Your task to perform on an android device: turn on improve location accuracy Image 0: 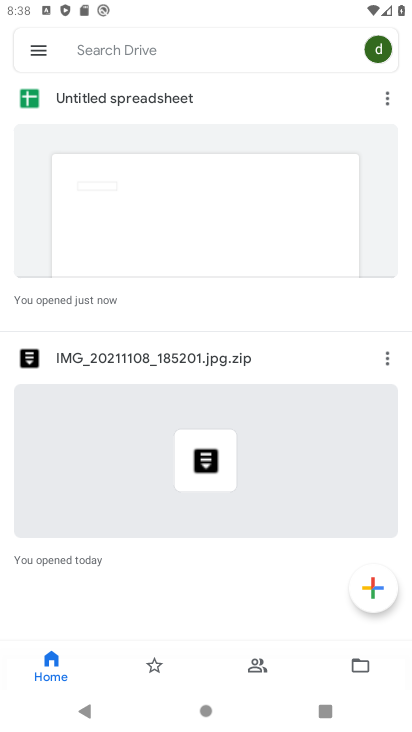
Step 0: press home button
Your task to perform on an android device: turn on improve location accuracy Image 1: 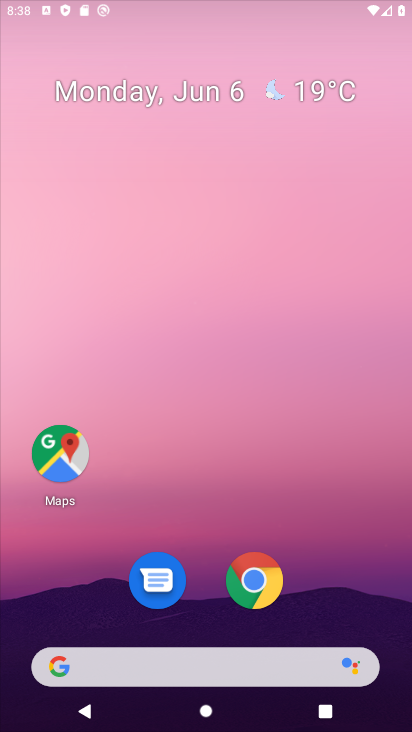
Step 1: drag from (244, 626) to (248, 26)
Your task to perform on an android device: turn on improve location accuracy Image 2: 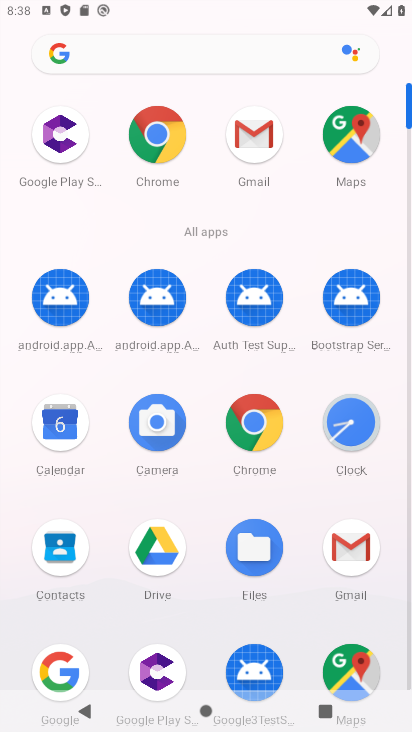
Step 2: drag from (197, 618) to (212, 200)
Your task to perform on an android device: turn on improve location accuracy Image 3: 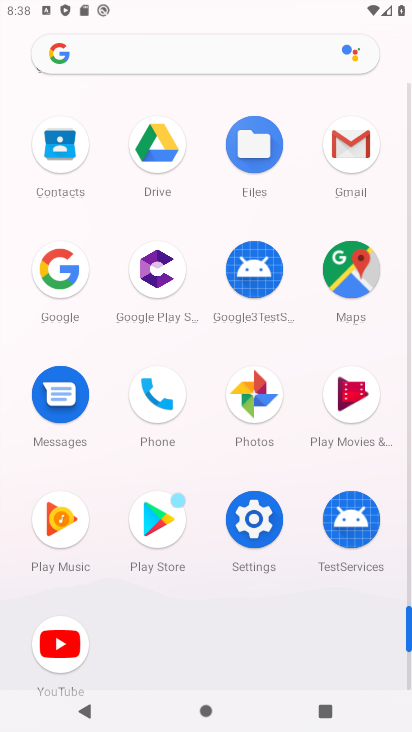
Step 3: click (250, 548)
Your task to perform on an android device: turn on improve location accuracy Image 4: 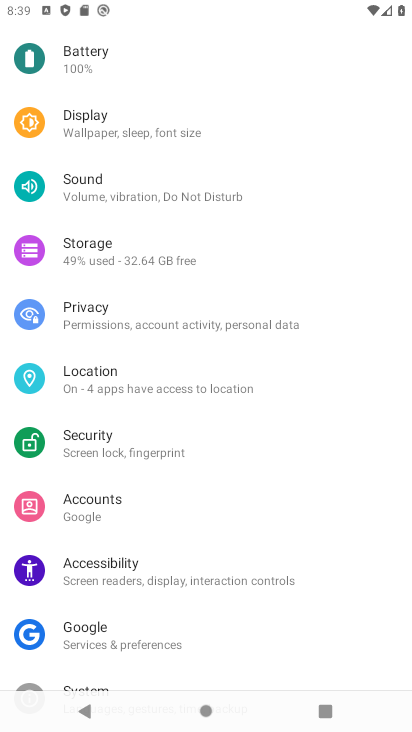
Step 4: click (157, 379)
Your task to perform on an android device: turn on improve location accuracy Image 5: 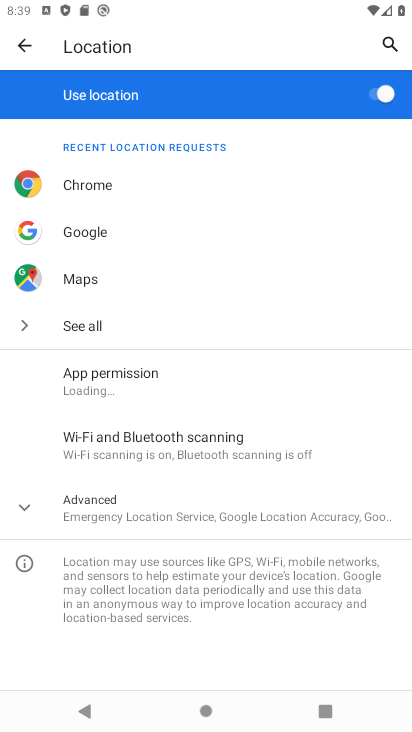
Step 5: click (172, 511)
Your task to perform on an android device: turn on improve location accuracy Image 6: 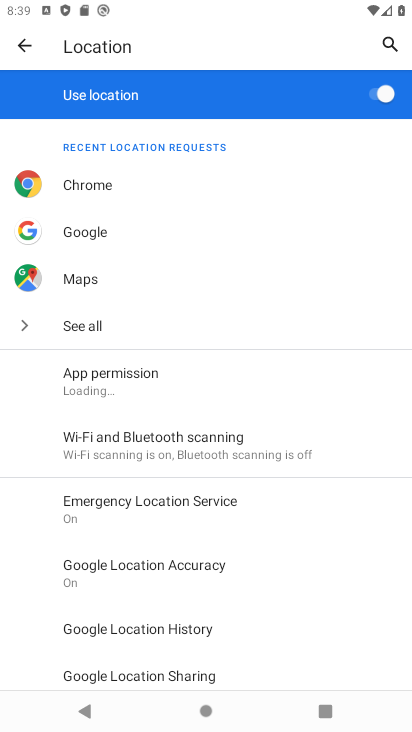
Step 6: click (225, 564)
Your task to perform on an android device: turn on improve location accuracy Image 7: 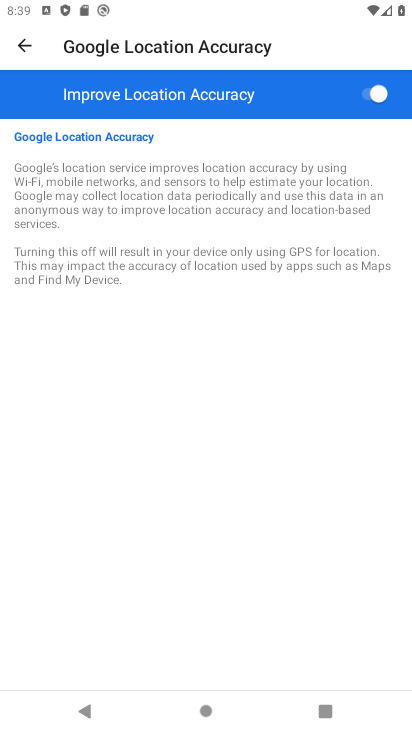
Step 7: task complete